Your task to perform on an android device: open chrome privacy settings Image 0: 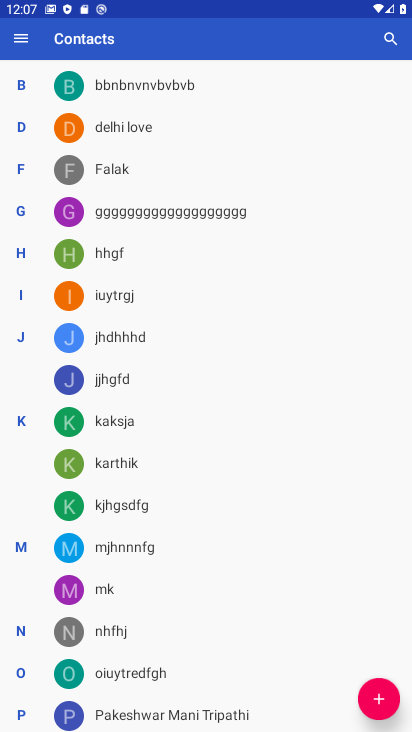
Step 0: press home button
Your task to perform on an android device: open chrome privacy settings Image 1: 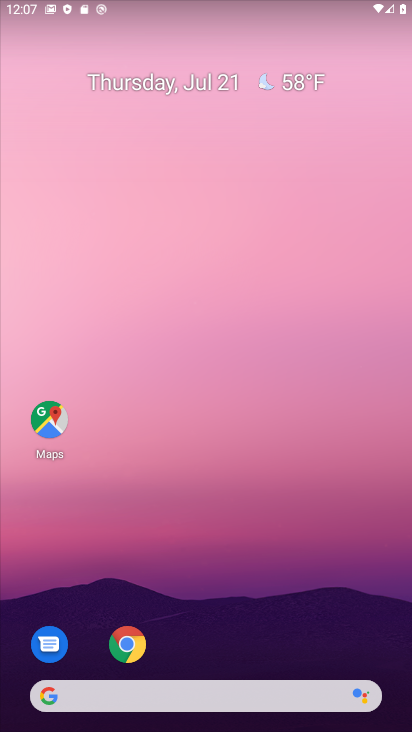
Step 1: click (148, 646)
Your task to perform on an android device: open chrome privacy settings Image 2: 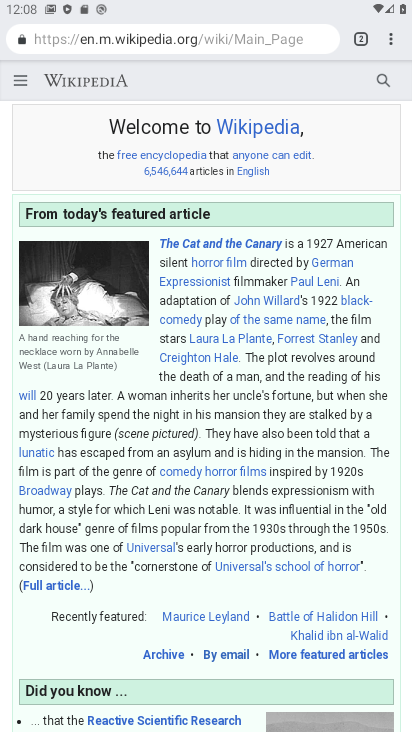
Step 2: click (383, 35)
Your task to perform on an android device: open chrome privacy settings Image 3: 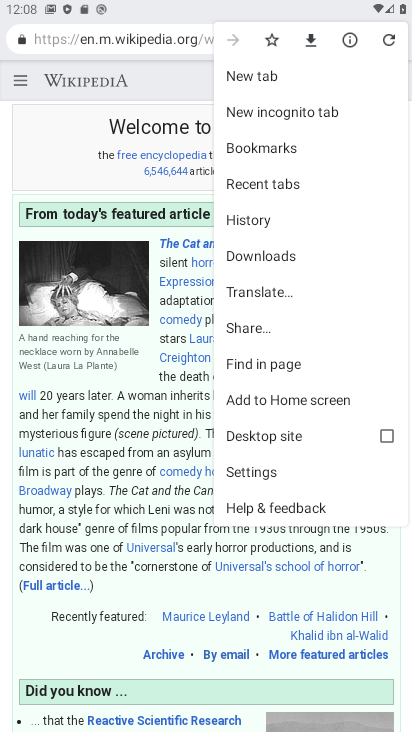
Step 3: click (249, 455)
Your task to perform on an android device: open chrome privacy settings Image 4: 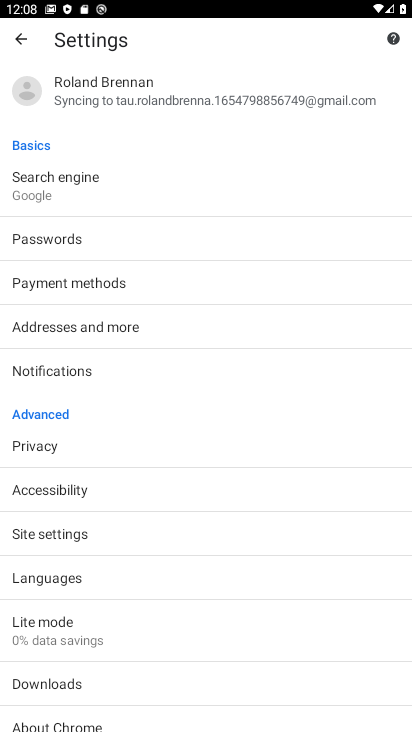
Step 4: click (32, 437)
Your task to perform on an android device: open chrome privacy settings Image 5: 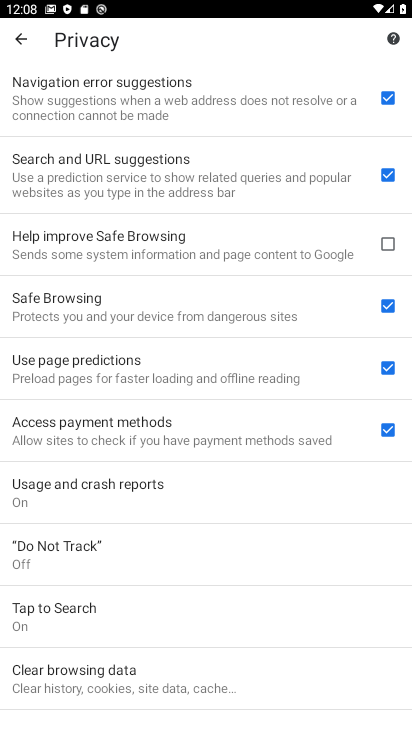
Step 5: task complete